Your task to perform on an android device: change alarm snooze length Image 0: 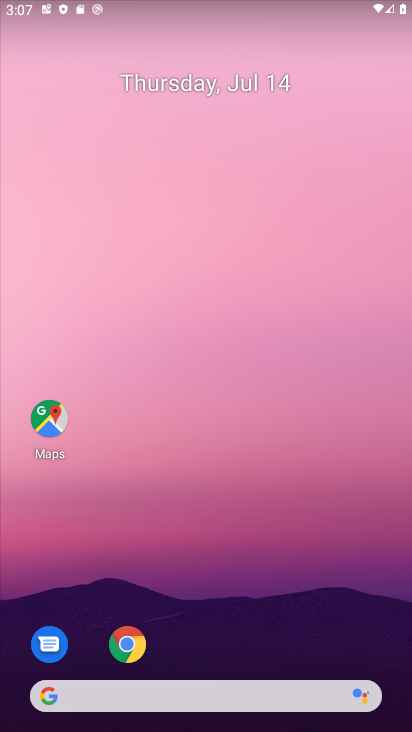
Step 0: drag from (209, 633) to (258, 34)
Your task to perform on an android device: change alarm snooze length Image 1: 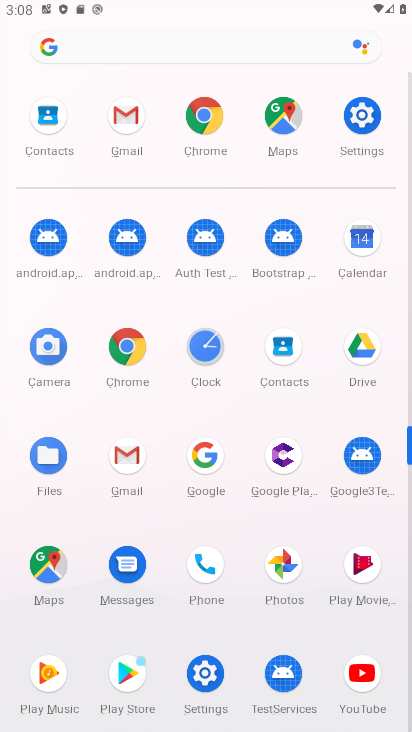
Step 1: click (198, 346)
Your task to perform on an android device: change alarm snooze length Image 2: 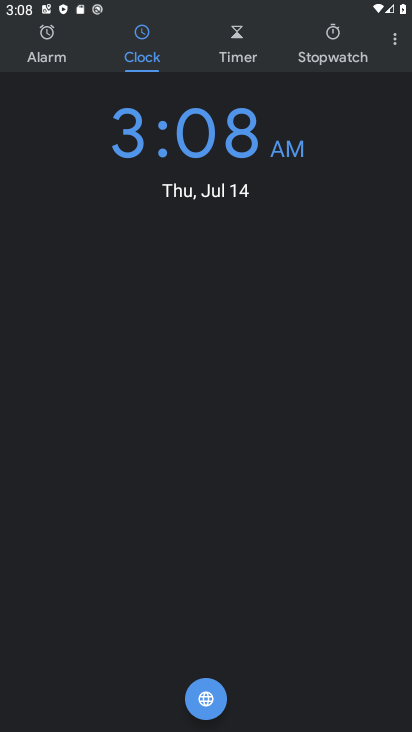
Step 2: click (401, 47)
Your task to perform on an android device: change alarm snooze length Image 3: 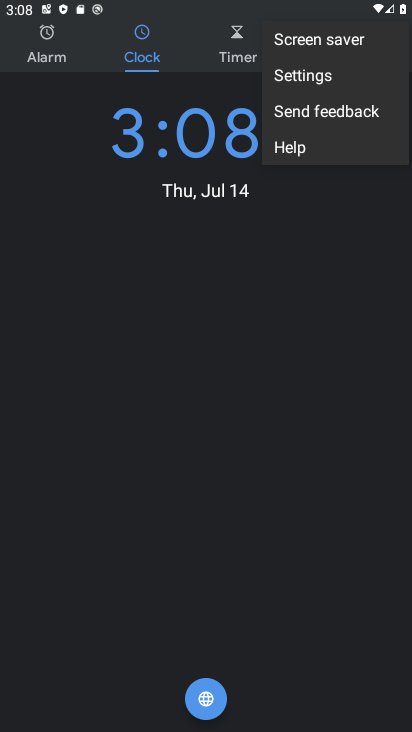
Step 3: click (326, 78)
Your task to perform on an android device: change alarm snooze length Image 4: 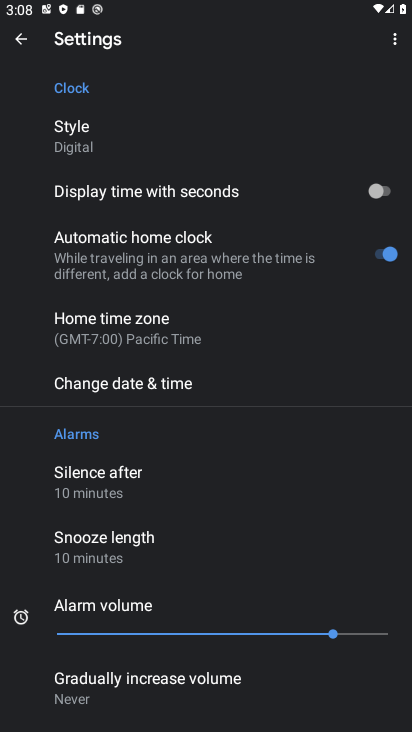
Step 4: click (89, 544)
Your task to perform on an android device: change alarm snooze length Image 5: 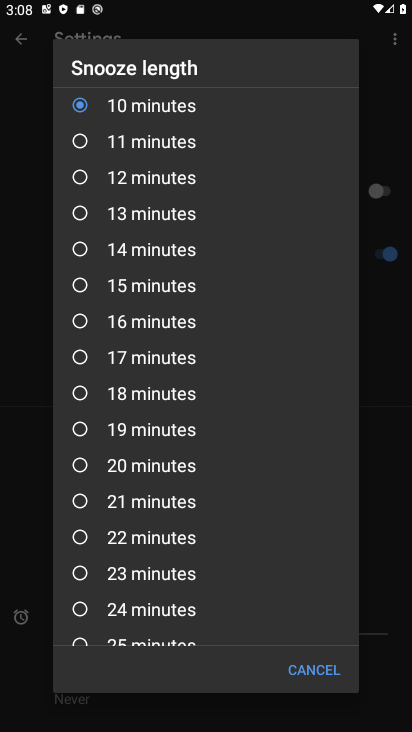
Step 5: click (91, 257)
Your task to perform on an android device: change alarm snooze length Image 6: 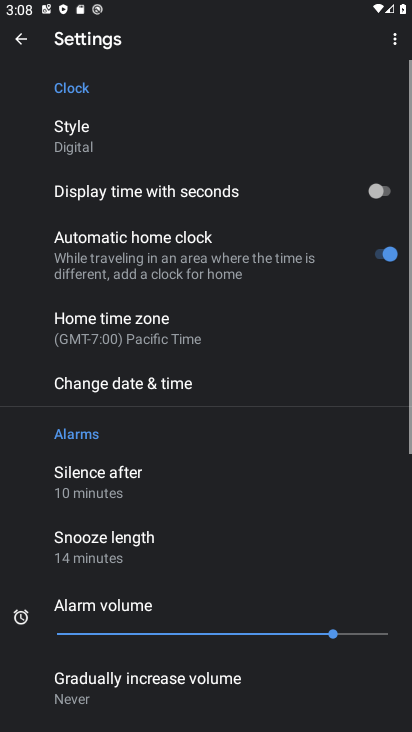
Step 6: task complete